Your task to perform on an android device: Show me the alarms in the clock app Image 0: 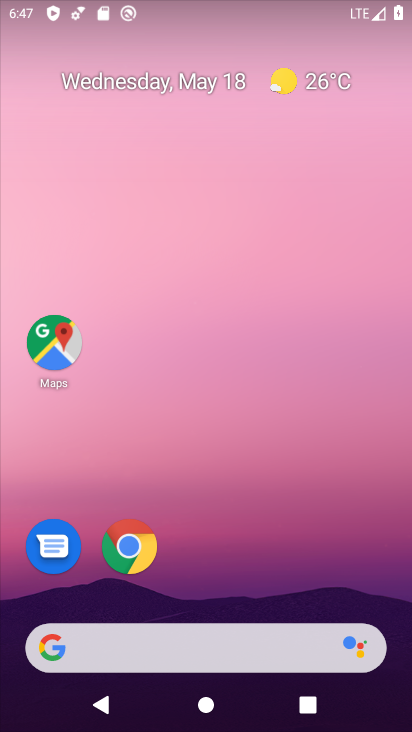
Step 0: drag from (397, 613) to (310, 12)
Your task to perform on an android device: Show me the alarms in the clock app Image 1: 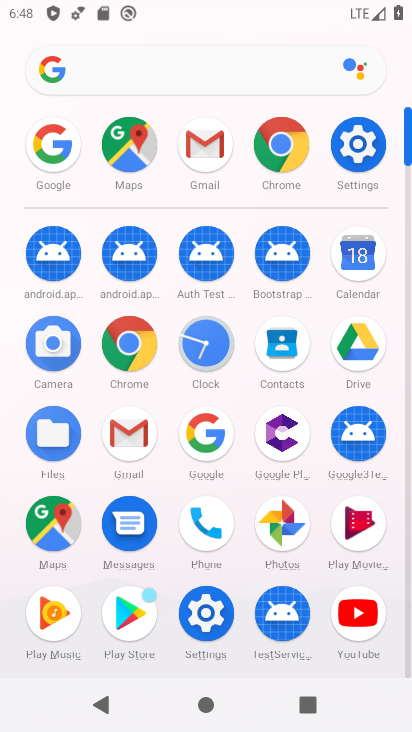
Step 1: click (220, 333)
Your task to perform on an android device: Show me the alarms in the clock app Image 2: 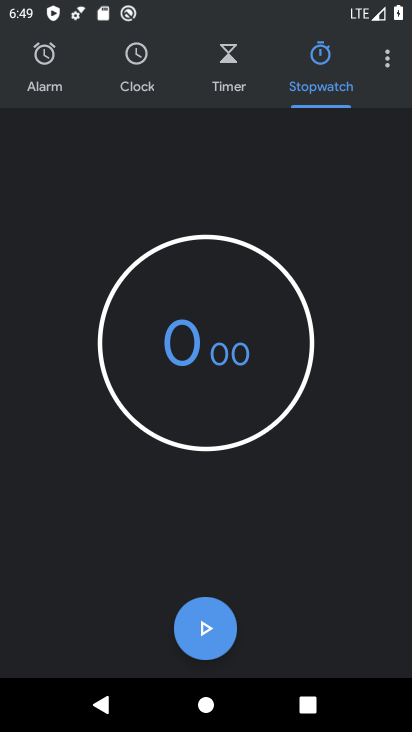
Step 2: click (142, 72)
Your task to perform on an android device: Show me the alarms in the clock app Image 3: 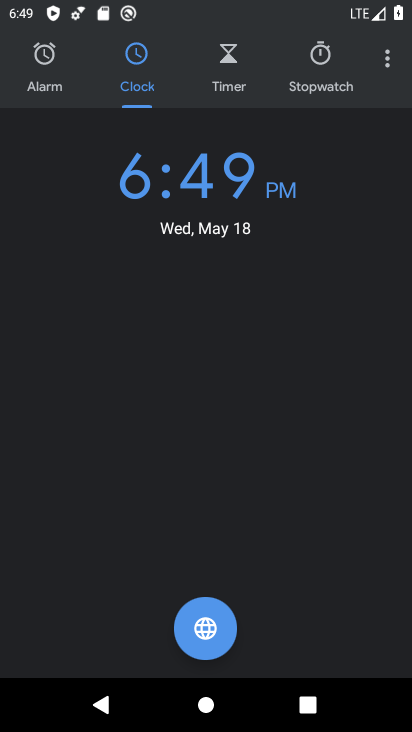
Step 3: task complete